Your task to perform on an android device: Open the Play Movies app and select the watchlist tab. Image 0: 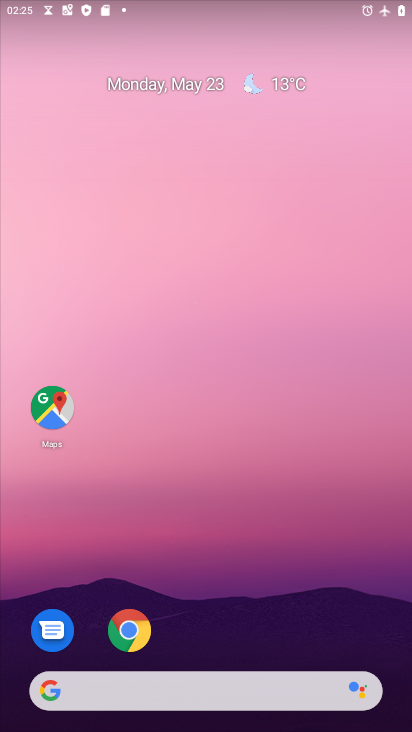
Step 0: drag from (293, 600) to (241, 41)
Your task to perform on an android device: Open the Play Movies app and select the watchlist tab. Image 1: 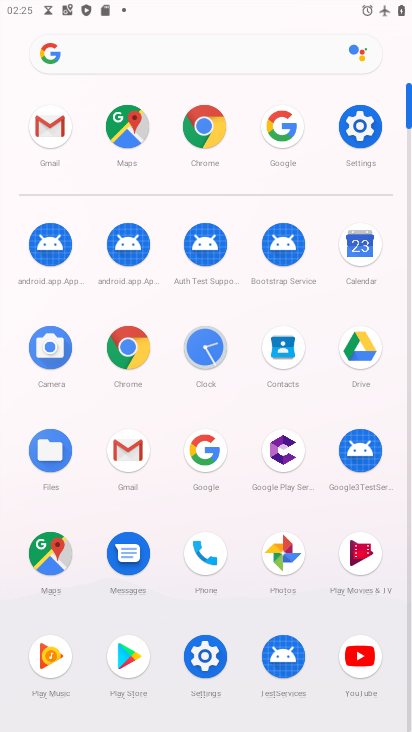
Step 1: click (358, 549)
Your task to perform on an android device: Open the Play Movies app and select the watchlist tab. Image 2: 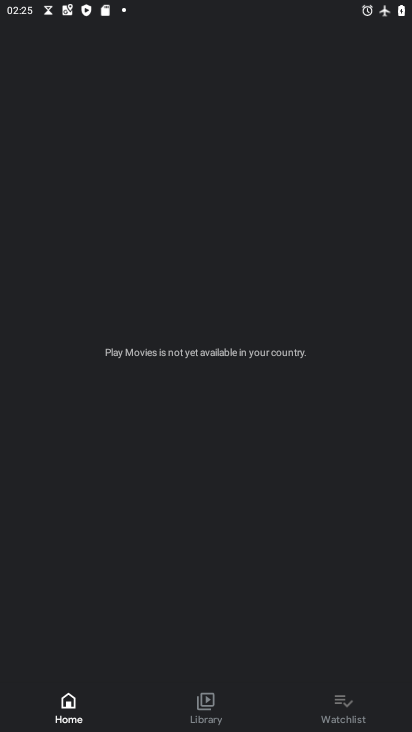
Step 2: click (340, 710)
Your task to perform on an android device: Open the Play Movies app and select the watchlist tab. Image 3: 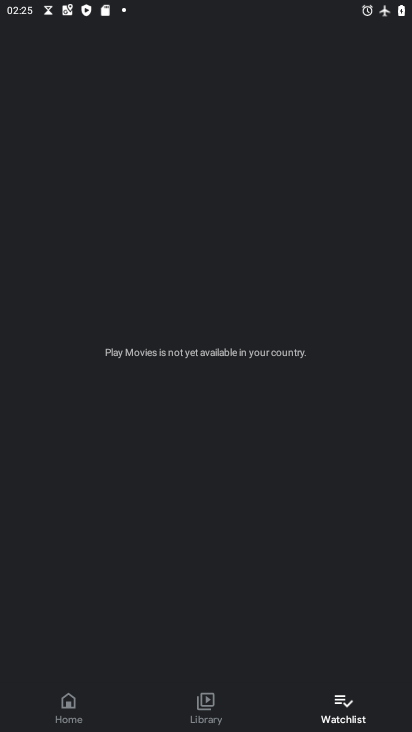
Step 3: task complete